Your task to perform on an android device: open a new tab in the chrome app Image 0: 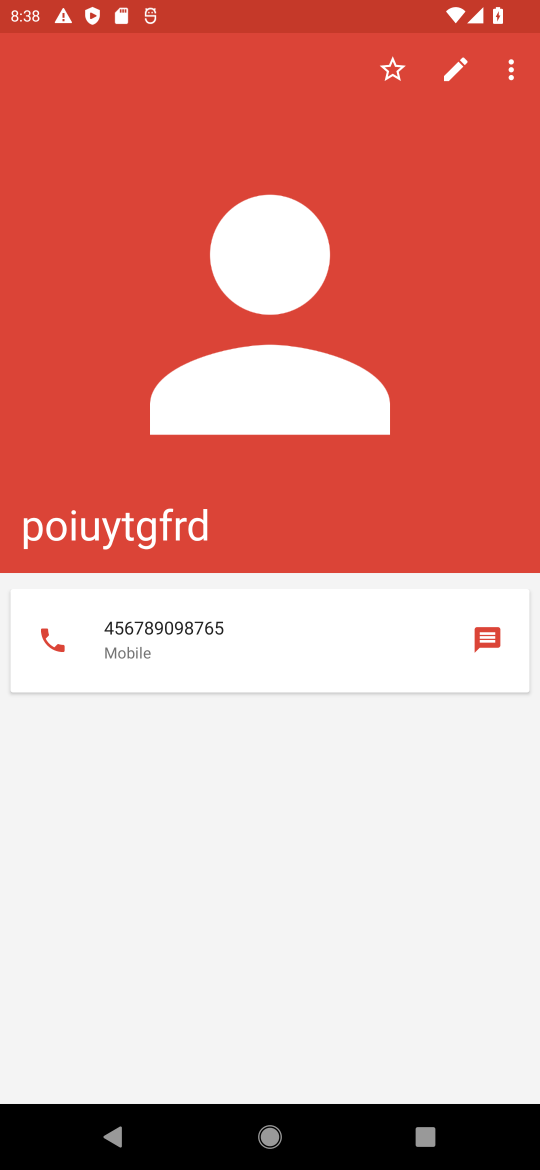
Step 0: press home button
Your task to perform on an android device: open a new tab in the chrome app Image 1: 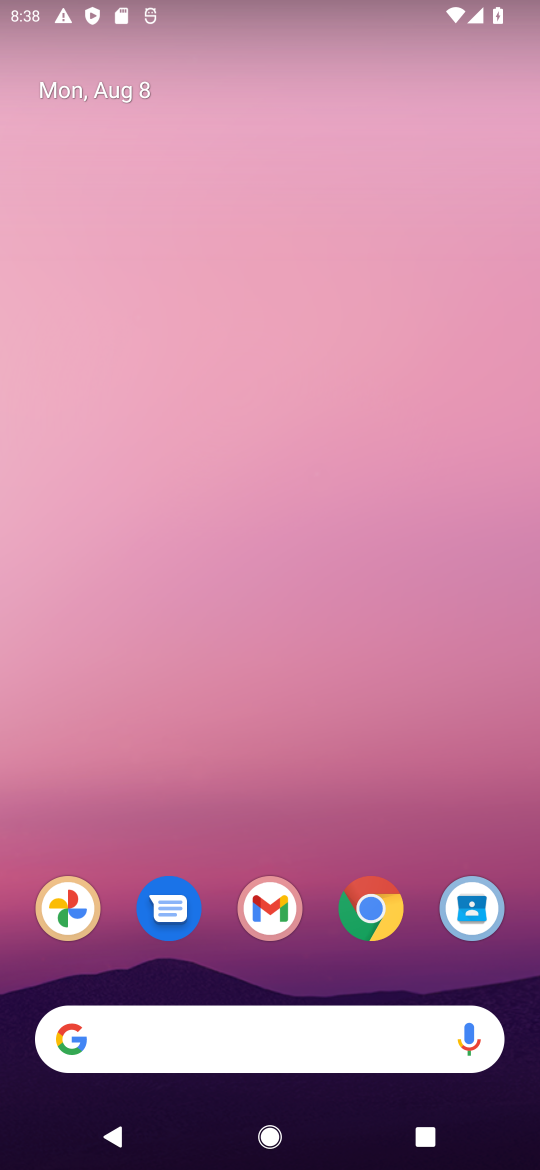
Step 1: click (352, 912)
Your task to perform on an android device: open a new tab in the chrome app Image 2: 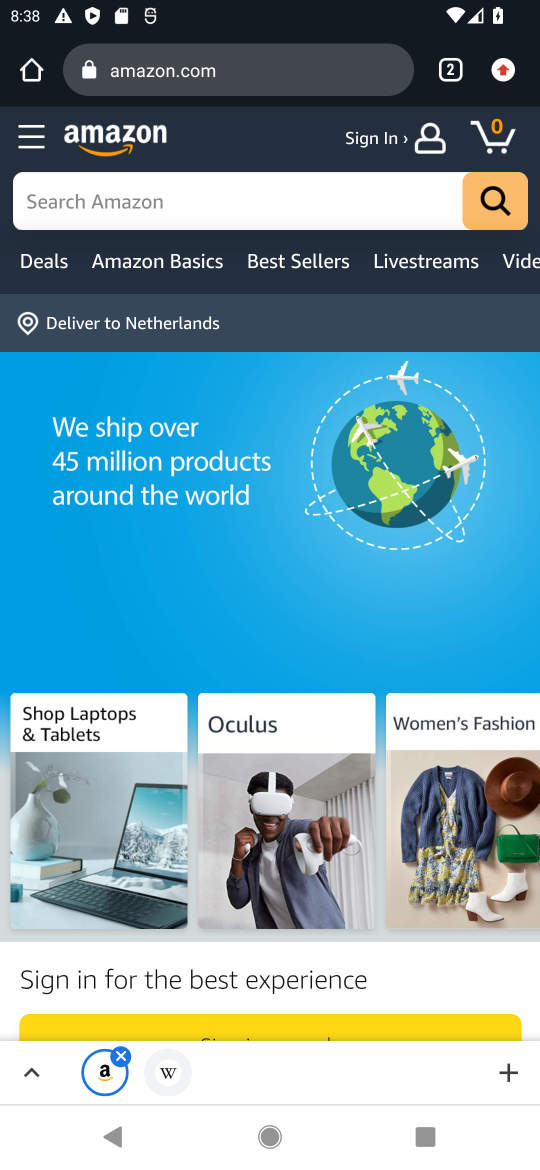
Step 2: click (492, 77)
Your task to perform on an android device: open a new tab in the chrome app Image 3: 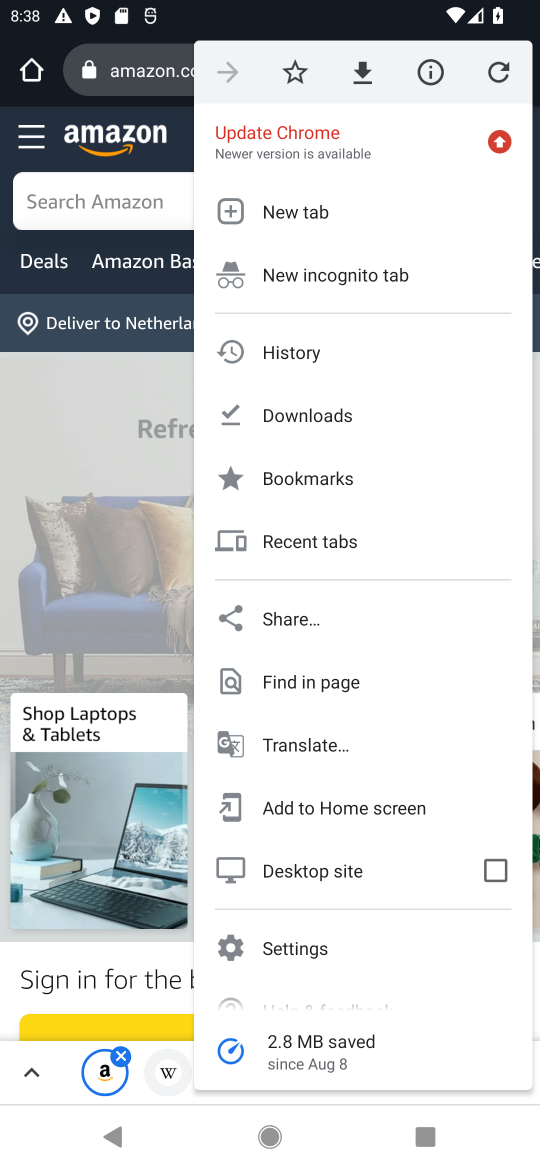
Step 3: click (370, 542)
Your task to perform on an android device: open a new tab in the chrome app Image 4: 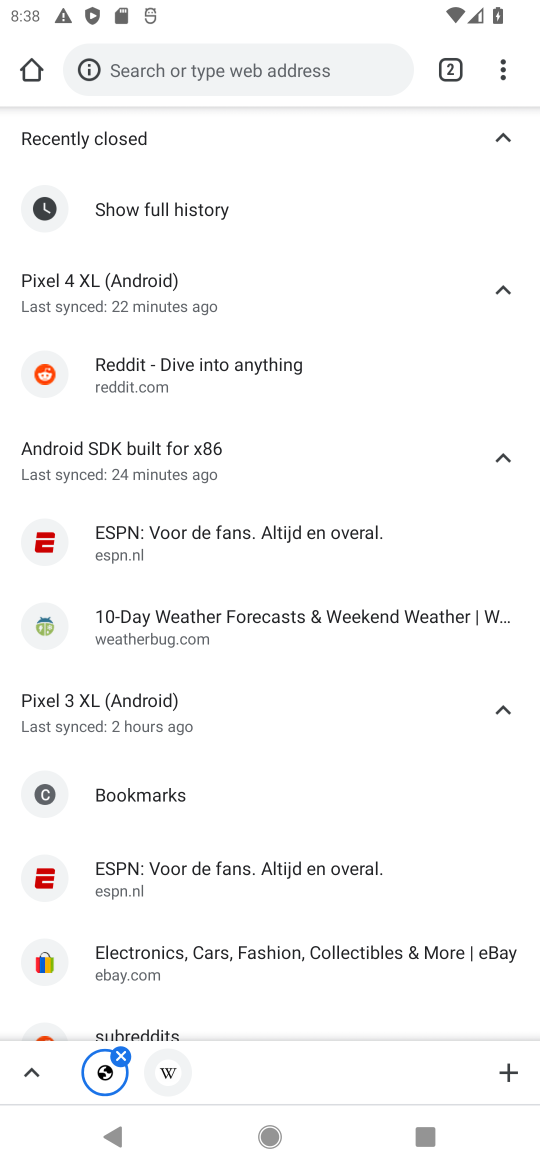
Step 4: task complete